Your task to perform on an android device: delete a single message in the gmail app Image 0: 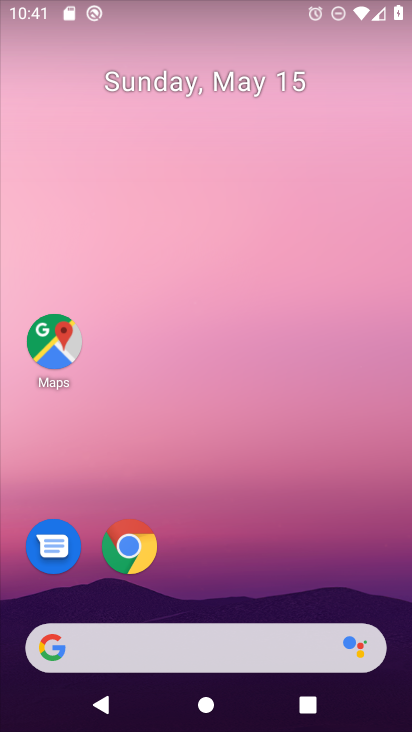
Step 0: drag from (232, 561) to (363, 117)
Your task to perform on an android device: delete a single message in the gmail app Image 1: 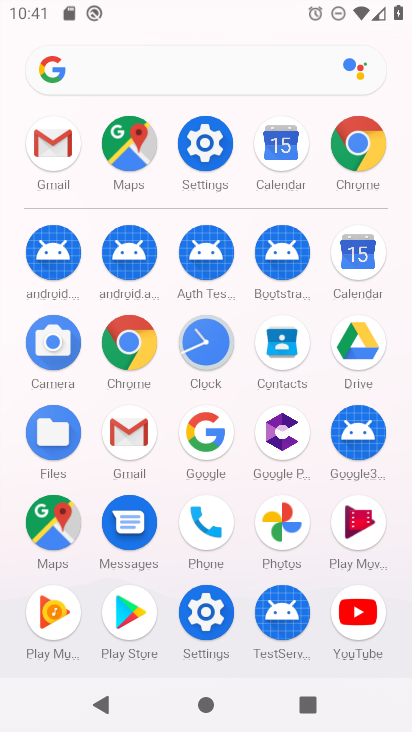
Step 1: click (56, 158)
Your task to perform on an android device: delete a single message in the gmail app Image 2: 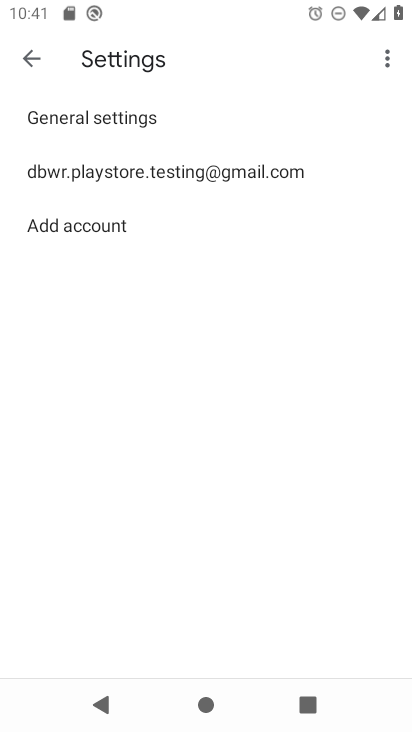
Step 2: click (23, 51)
Your task to perform on an android device: delete a single message in the gmail app Image 3: 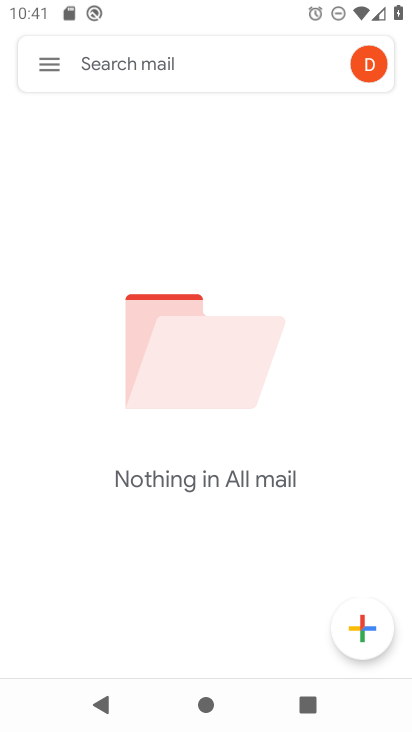
Step 3: click (36, 54)
Your task to perform on an android device: delete a single message in the gmail app Image 4: 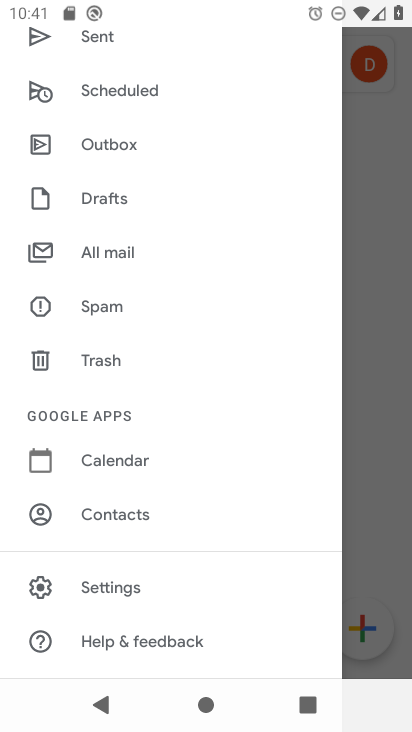
Step 4: click (120, 257)
Your task to perform on an android device: delete a single message in the gmail app Image 5: 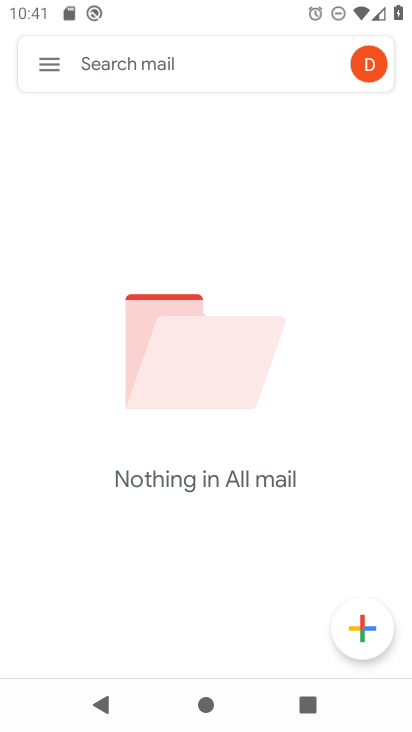
Step 5: task complete